Your task to perform on an android device: Open settings on Google Maps Image 0: 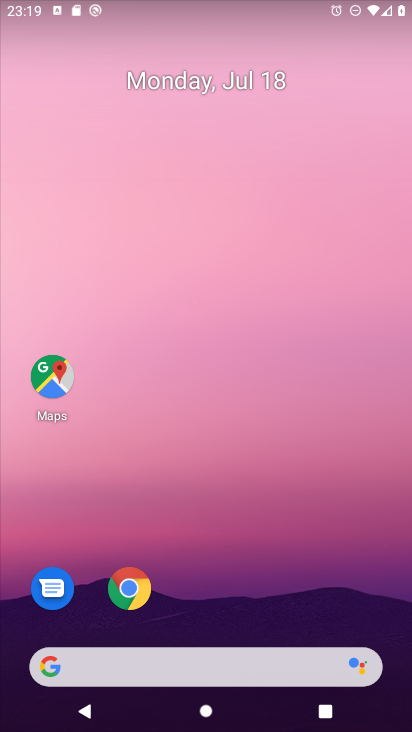
Step 0: click (52, 376)
Your task to perform on an android device: Open settings on Google Maps Image 1: 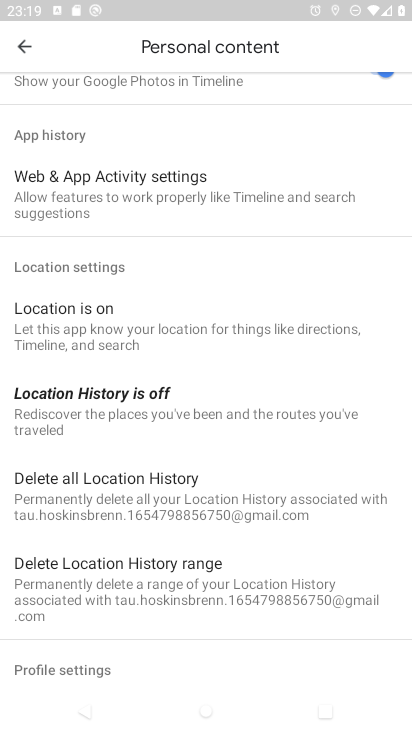
Step 1: task complete